Your task to perform on an android device: turn pop-ups on in chrome Image 0: 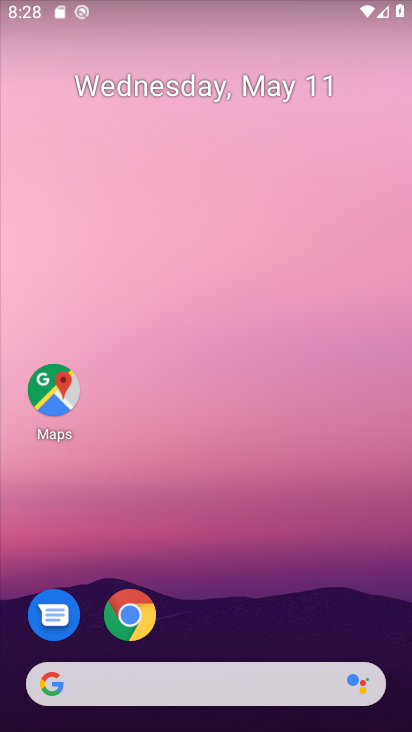
Step 0: drag from (275, 580) to (249, 2)
Your task to perform on an android device: turn pop-ups on in chrome Image 1: 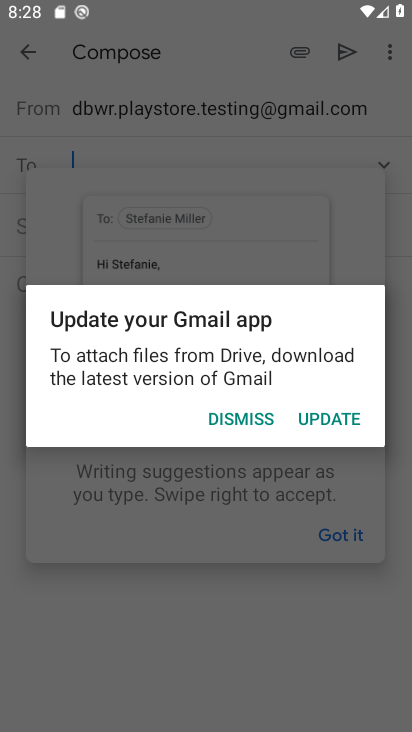
Step 1: press home button
Your task to perform on an android device: turn pop-ups on in chrome Image 2: 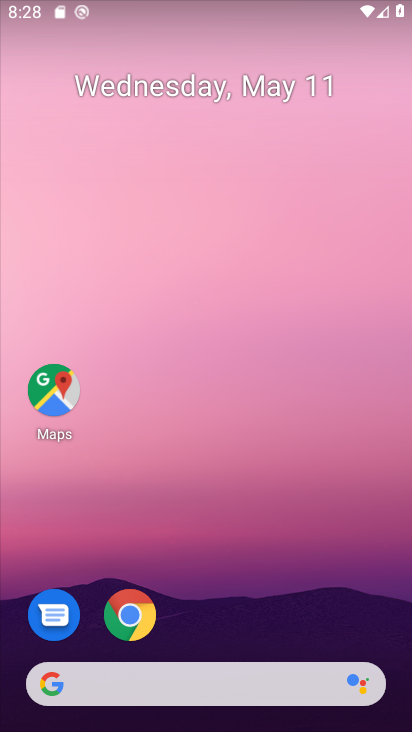
Step 2: drag from (309, 567) to (277, 15)
Your task to perform on an android device: turn pop-ups on in chrome Image 3: 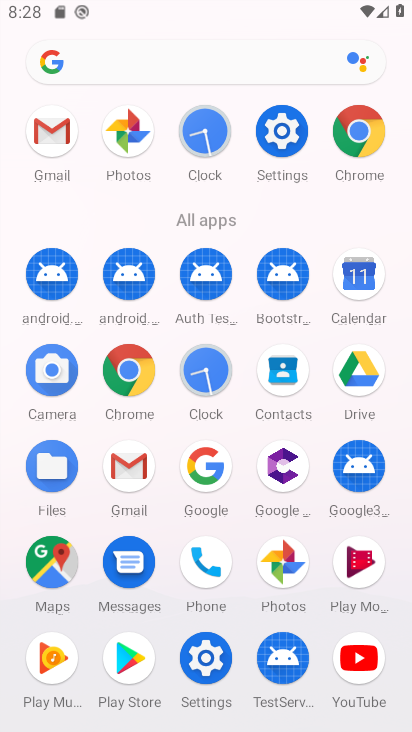
Step 3: click (364, 139)
Your task to perform on an android device: turn pop-ups on in chrome Image 4: 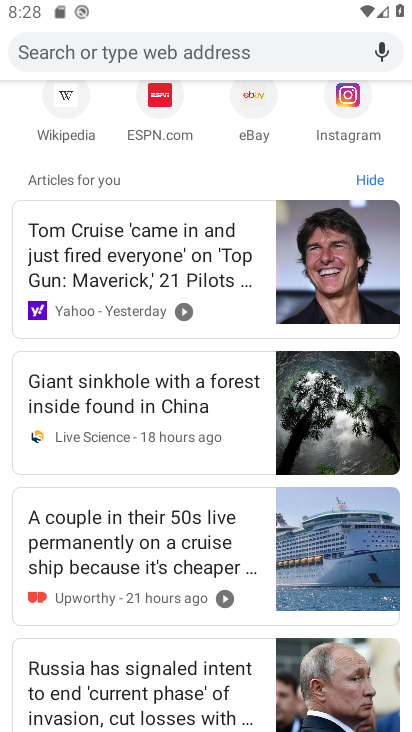
Step 4: drag from (275, 172) to (232, 563)
Your task to perform on an android device: turn pop-ups on in chrome Image 5: 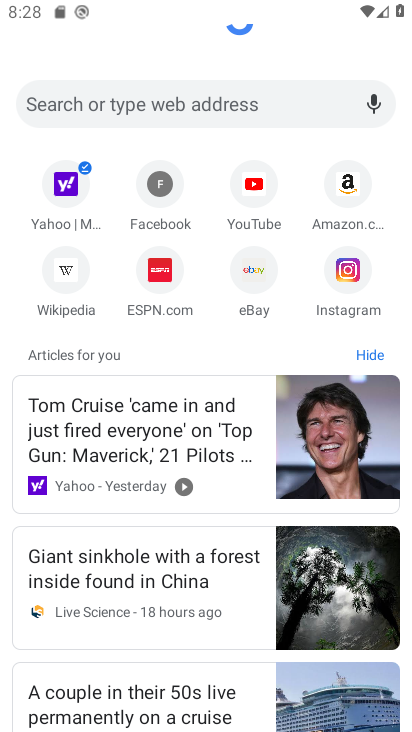
Step 5: drag from (195, 202) to (218, 554)
Your task to perform on an android device: turn pop-ups on in chrome Image 6: 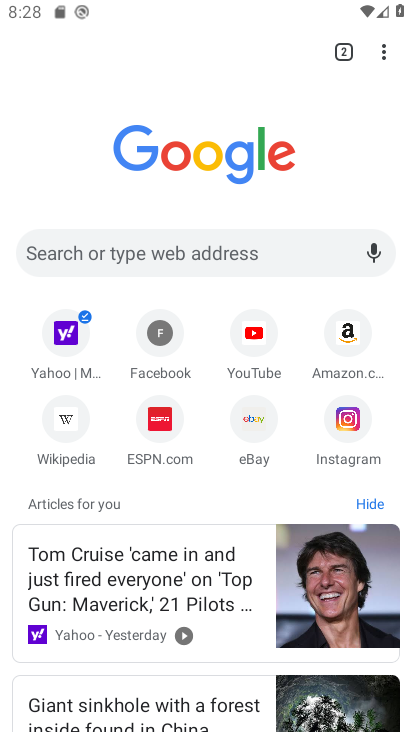
Step 6: drag from (385, 59) to (250, 426)
Your task to perform on an android device: turn pop-ups on in chrome Image 7: 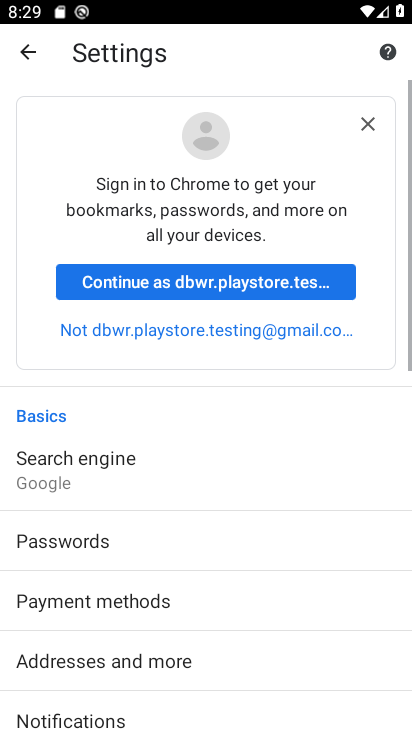
Step 7: drag from (257, 647) to (243, 234)
Your task to perform on an android device: turn pop-ups on in chrome Image 8: 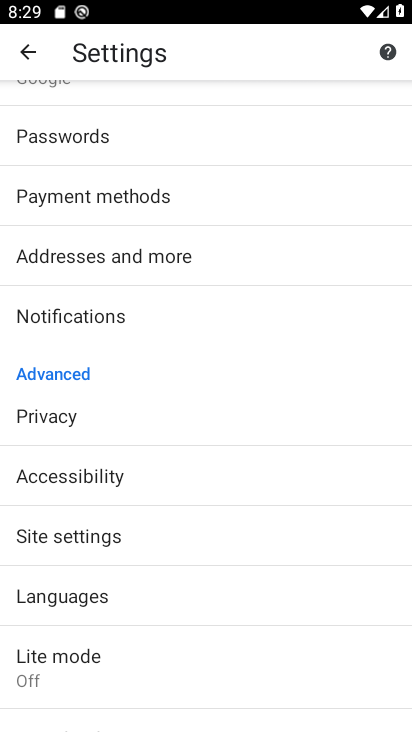
Step 8: click (118, 547)
Your task to perform on an android device: turn pop-ups on in chrome Image 9: 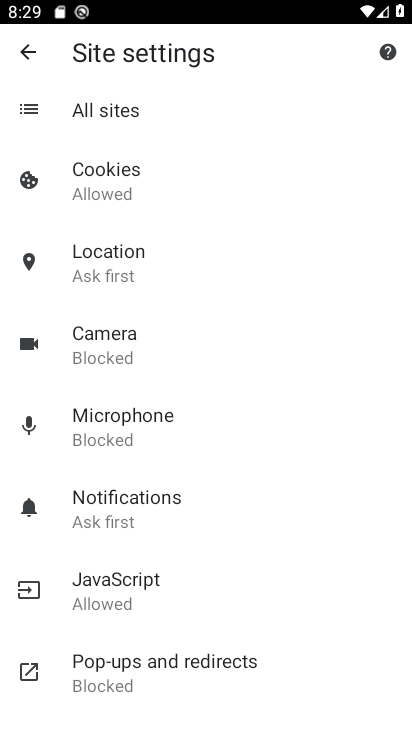
Step 9: click (128, 679)
Your task to perform on an android device: turn pop-ups on in chrome Image 10: 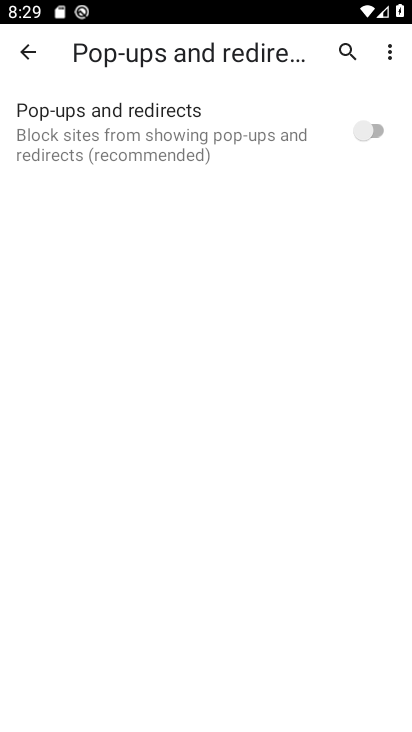
Step 10: click (354, 138)
Your task to perform on an android device: turn pop-ups on in chrome Image 11: 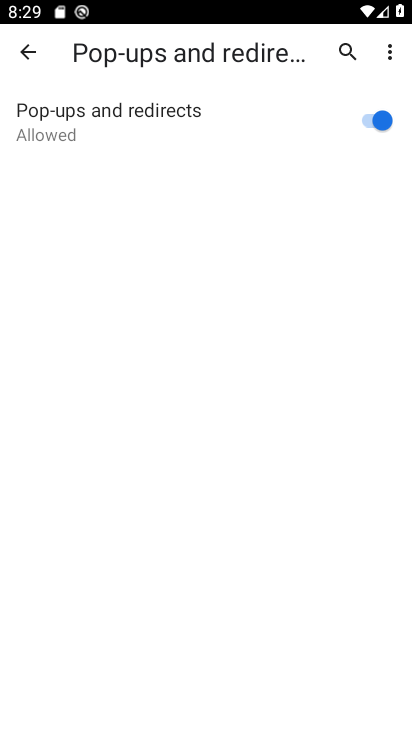
Step 11: task complete